Your task to perform on an android device: What's the weather? Image 0: 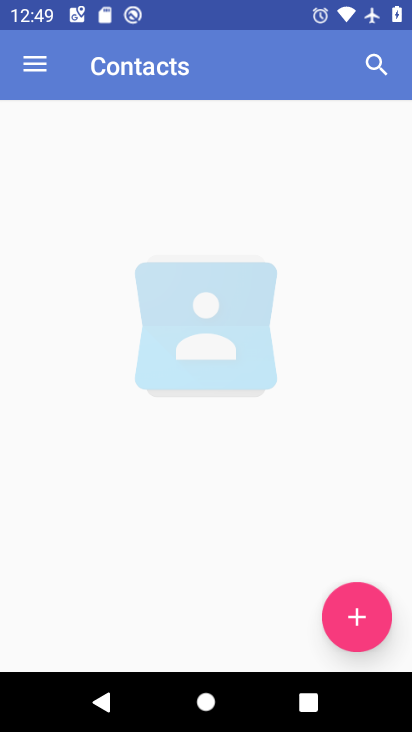
Step 0: press home button
Your task to perform on an android device: What's the weather? Image 1: 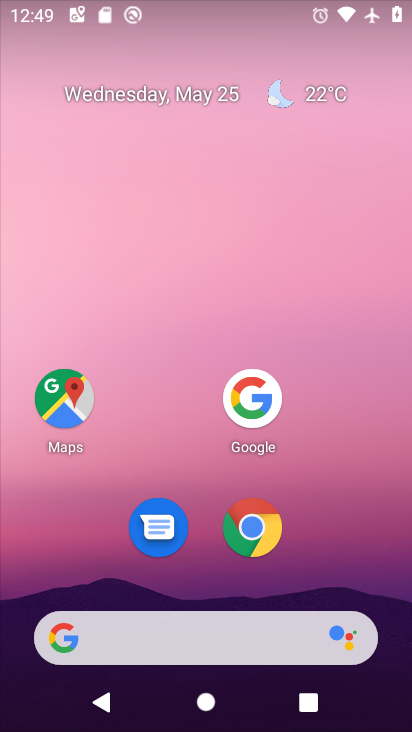
Step 1: click (70, 639)
Your task to perform on an android device: What's the weather? Image 2: 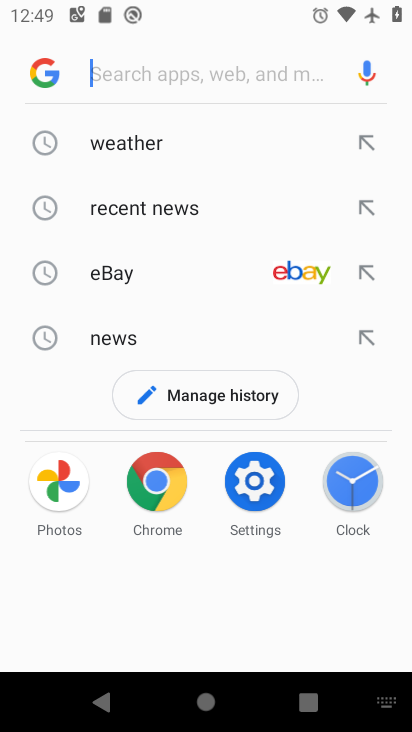
Step 2: click (129, 140)
Your task to perform on an android device: What's the weather? Image 3: 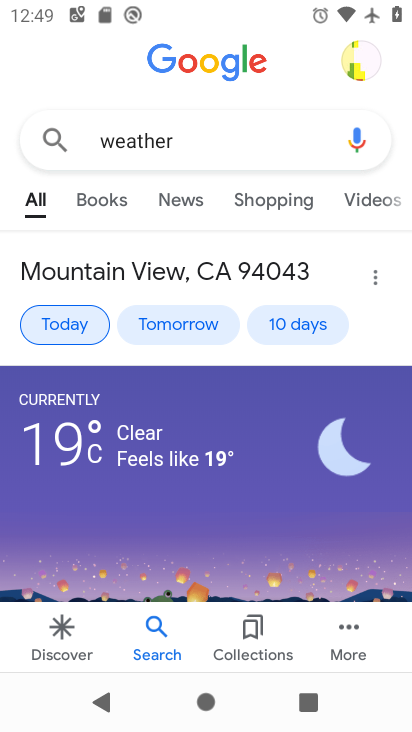
Step 3: task complete